Your task to perform on an android device: What's the news in the Bahamas? Image 0: 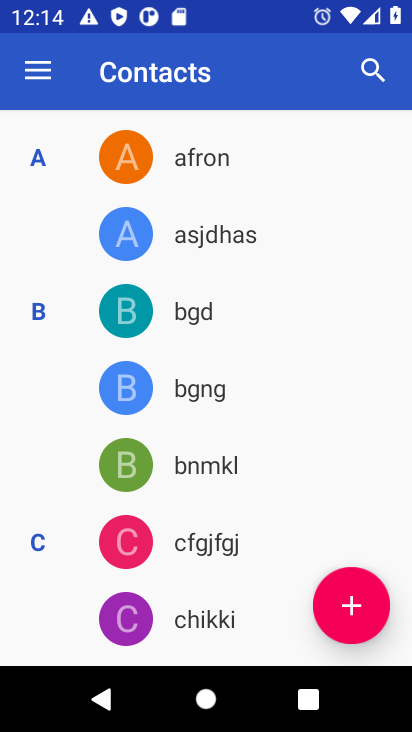
Step 0: press home button
Your task to perform on an android device: What's the news in the Bahamas? Image 1: 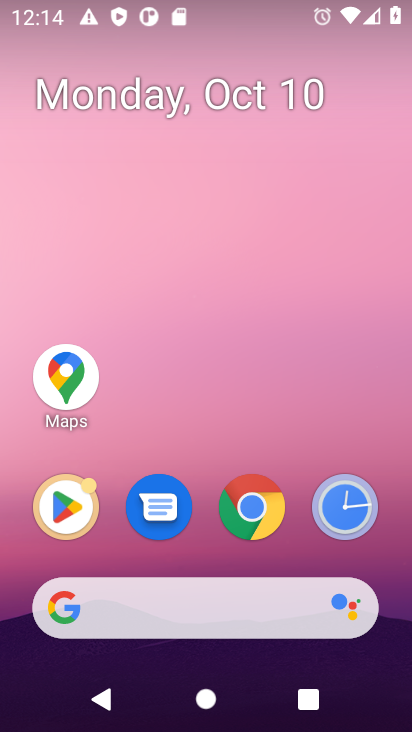
Step 1: click (230, 613)
Your task to perform on an android device: What's the news in the Bahamas? Image 2: 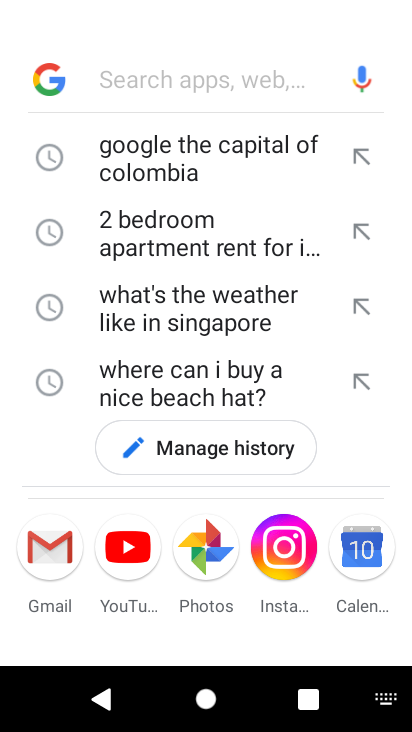
Step 2: press enter
Your task to perform on an android device: What's the news in the Bahamas? Image 3: 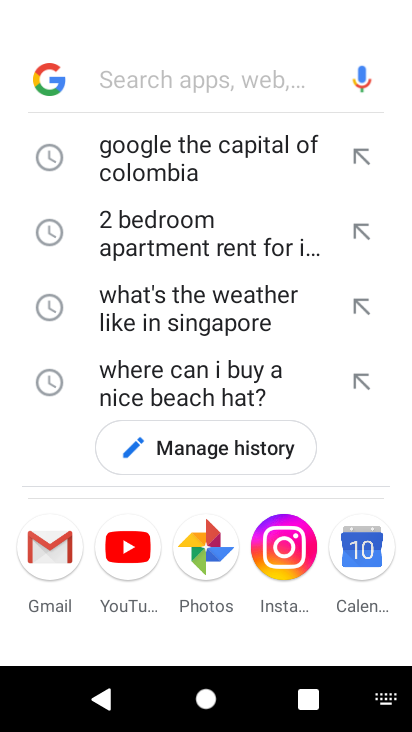
Step 3: type "What's the news in the Bahamas"
Your task to perform on an android device: What's the news in the Bahamas? Image 4: 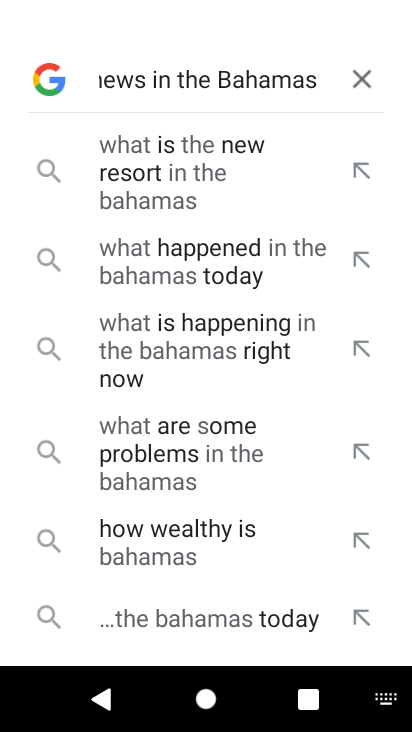
Step 4: press enter
Your task to perform on an android device: What's the news in the Bahamas? Image 5: 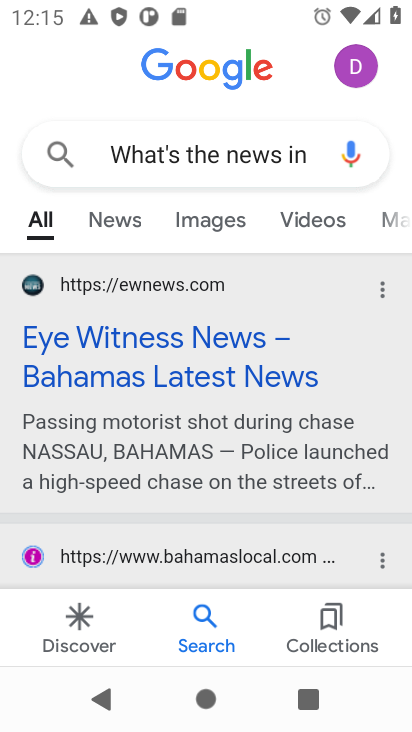
Step 5: click (208, 367)
Your task to perform on an android device: What's the news in the Bahamas? Image 6: 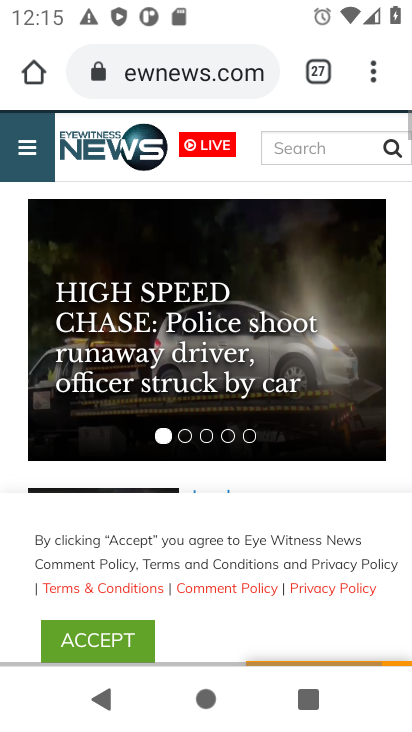
Step 6: click (113, 643)
Your task to perform on an android device: What's the news in the Bahamas? Image 7: 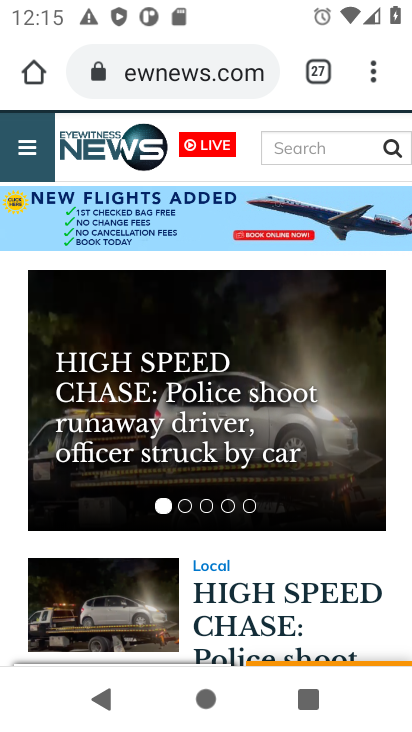
Step 7: task complete